Your task to perform on an android device: Search for pizza restaurants on Maps Image 0: 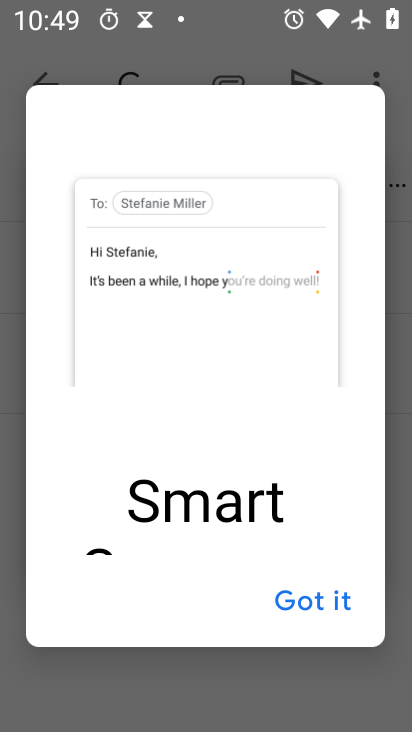
Step 0: press home button
Your task to perform on an android device: Search for pizza restaurants on Maps Image 1: 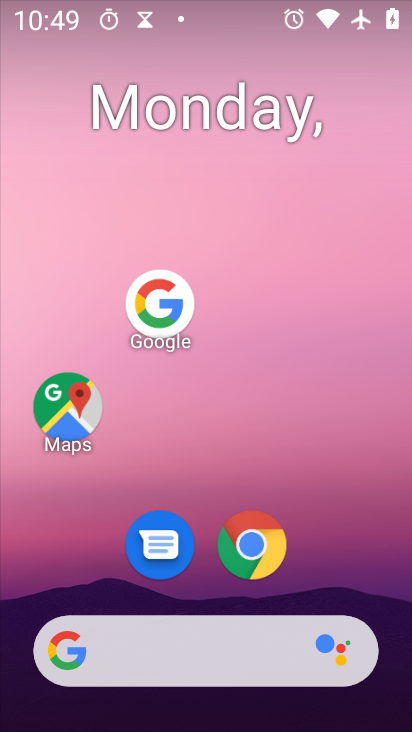
Step 1: click (74, 421)
Your task to perform on an android device: Search for pizza restaurants on Maps Image 2: 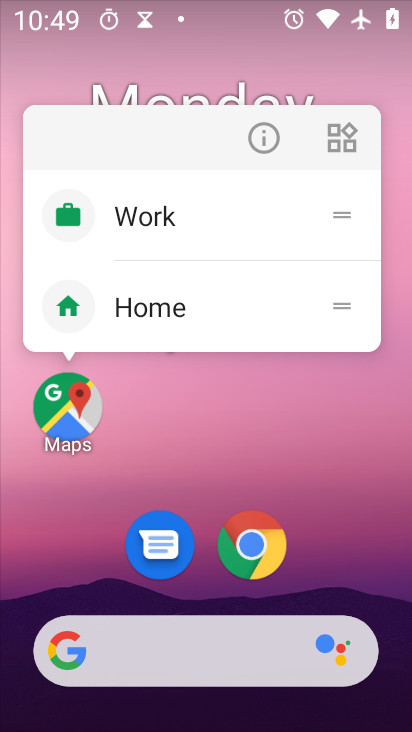
Step 2: click (64, 427)
Your task to perform on an android device: Search for pizza restaurants on Maps Image 3: 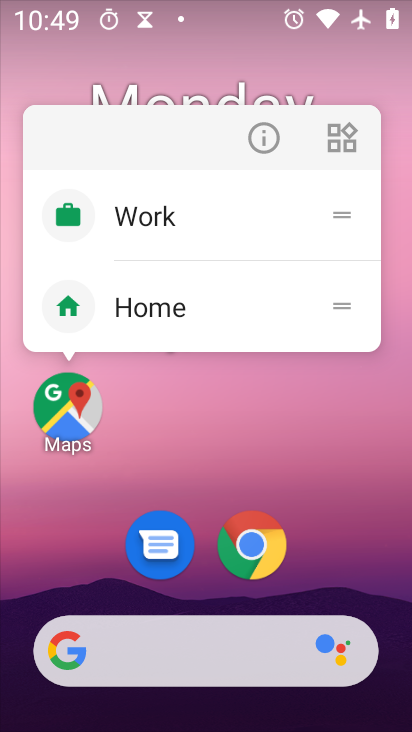
Step 3: click (67, 407)
Your task to perform on an android device: Search for pizza restaurants on Maps Image 4: 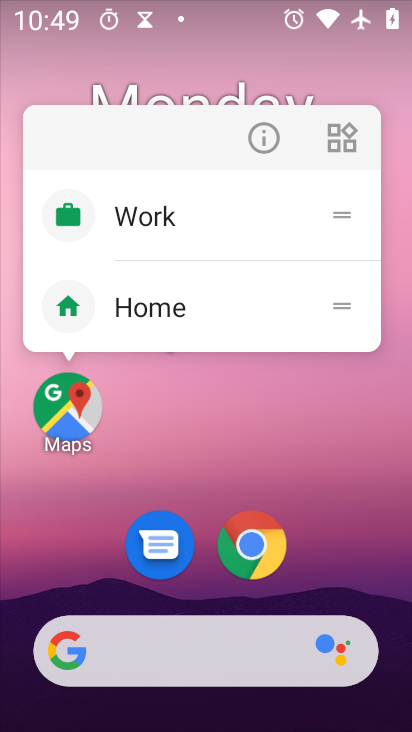
Step 4: click (62, 403)
Your task to perform on an android device: Search for pizza restaurants on Maps Image 5: 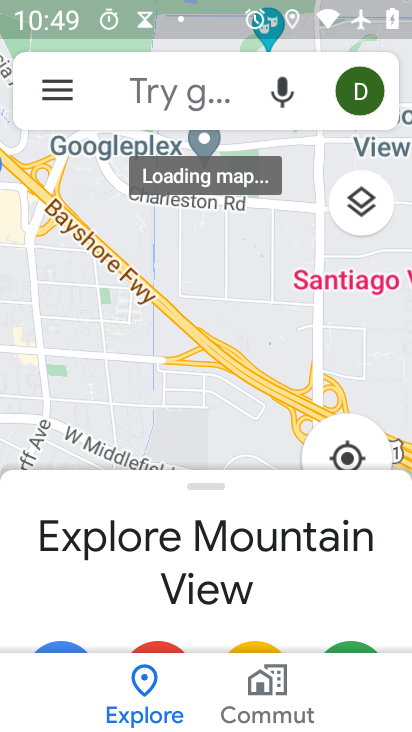
Step 5: click (202, 91)
Your task to perform on an android device: Search for pizza restaurants on Maps Image 6: 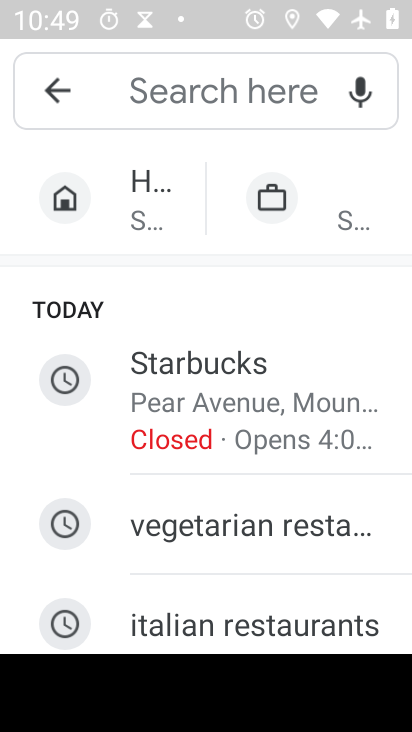
Step 6: type "pizza"
Your task to perform on an android device: Search for pizza restaurants on Maps Image 7: 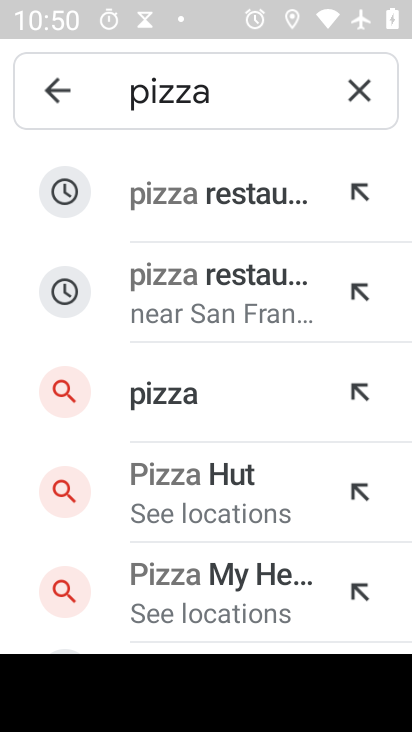
Step 7: click (229, 205)
Your task to perform on an android device: Search for pizza restaurants on Maps Image 8: 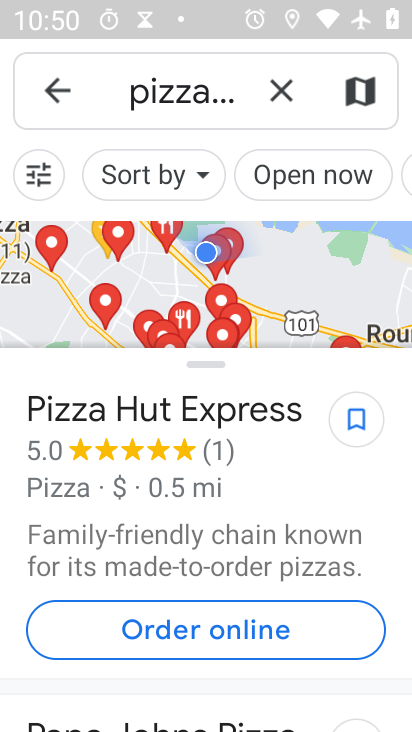
Step 8: task complete